Your task to perform on an android device: change alarm snooze length Image 0: 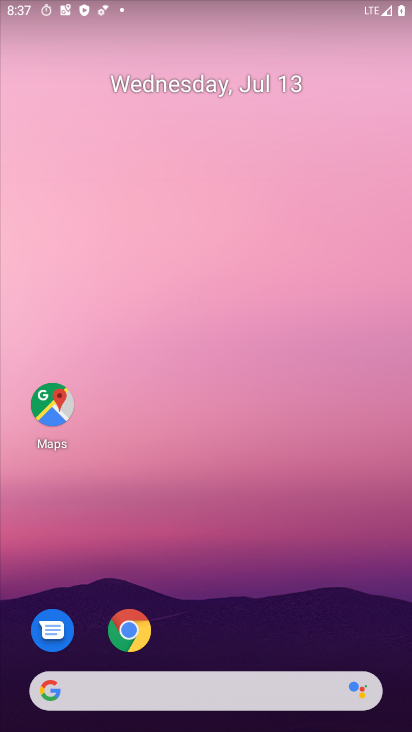
Step 0: drag from (321, 618) to (352, 118)
Your task to perform on an android device: change alarm snooze length Image 1: 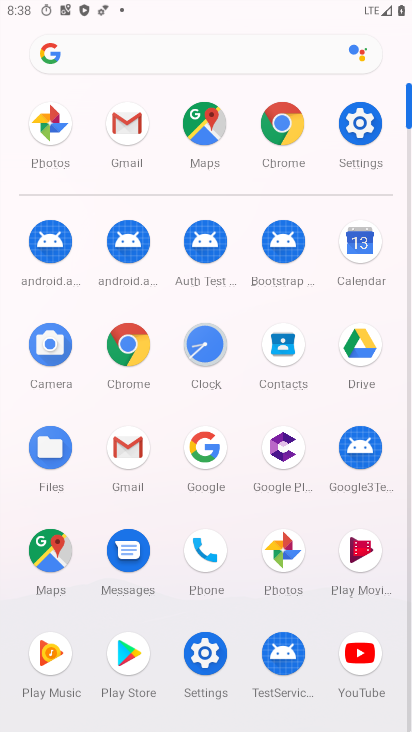
Step 1: click (196, 345)
Your task to perform on an android device: change alarm snooze length Image 2: 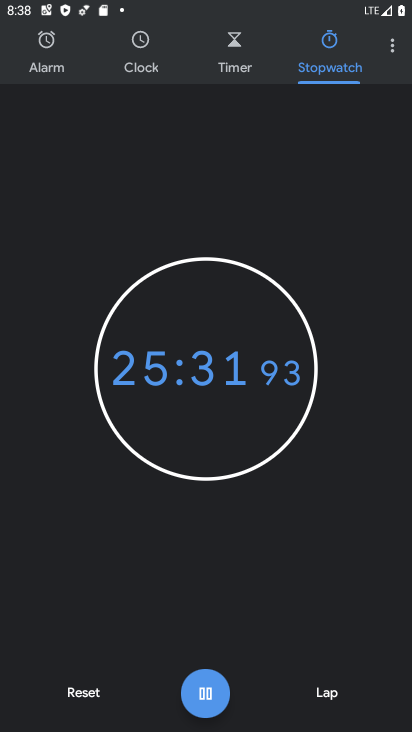
Step 2: click (393, 53)
Your task to perform on an android device: change alarm snooze length Image 3: 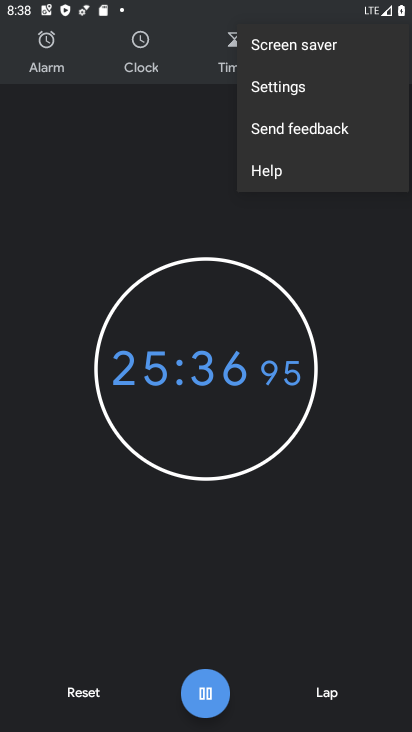
Step 3: click (306, 88)
Your task to perform on an android device: change alarm snooze length Image 4: 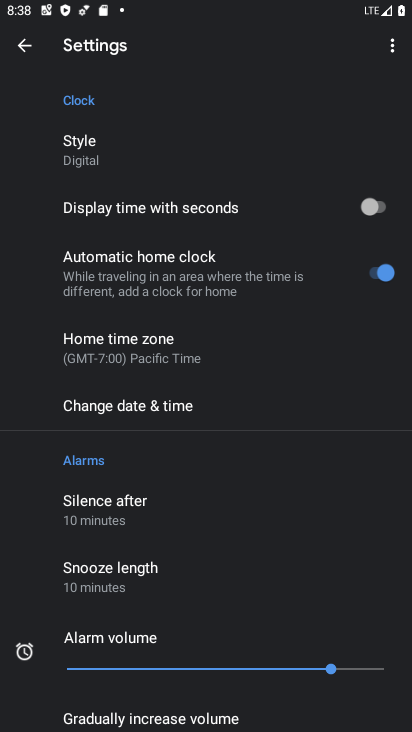
Step 4: drag from (295, 381) to (299, 294)
Your task to perform on an android device: change alarm snooze length Image 5: 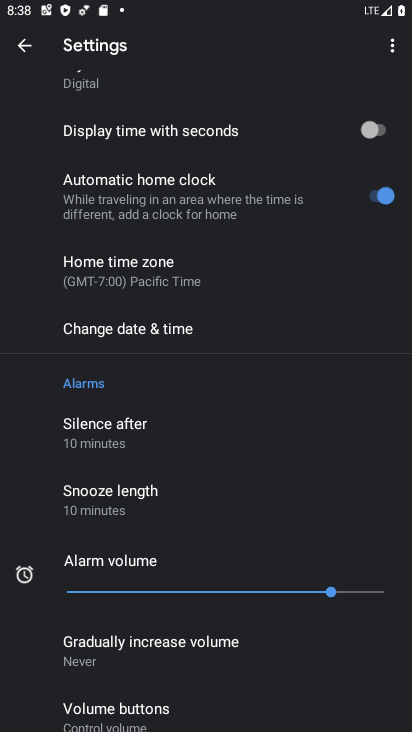
Step 5: drag from (288, 450) to (302, 337)
Your task to perform on an android device: change alarm snooze length Image 6: 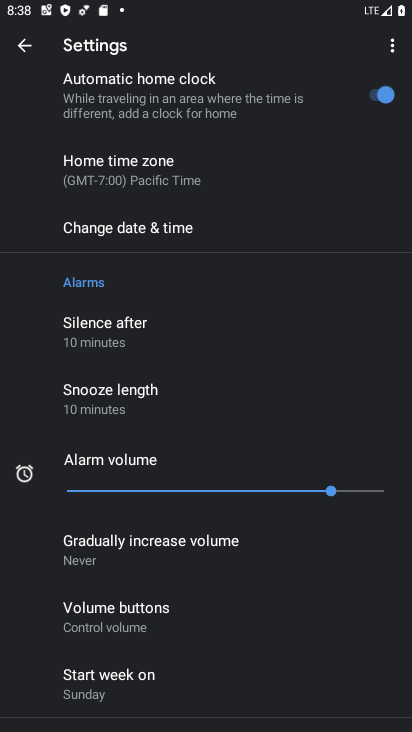
Step 6: drag from (306, 489) to (313, 359)
Your task to perform on an android device: change alarm snooze length Image 7: 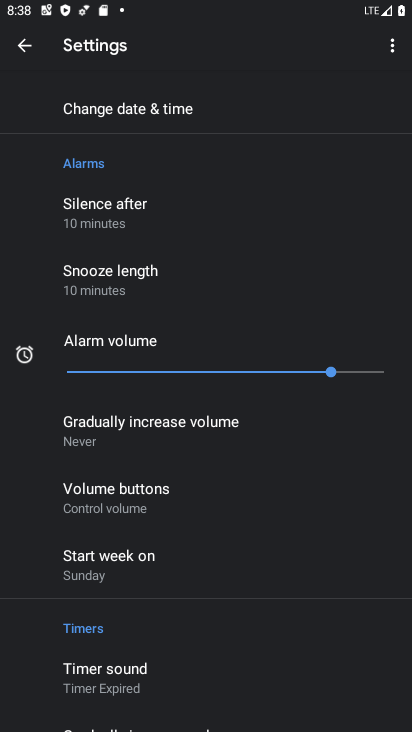
Step 7: drag from (311, 478) to (317, 376)
Your task to perform on an android device: change alarm snooze length Image 8: 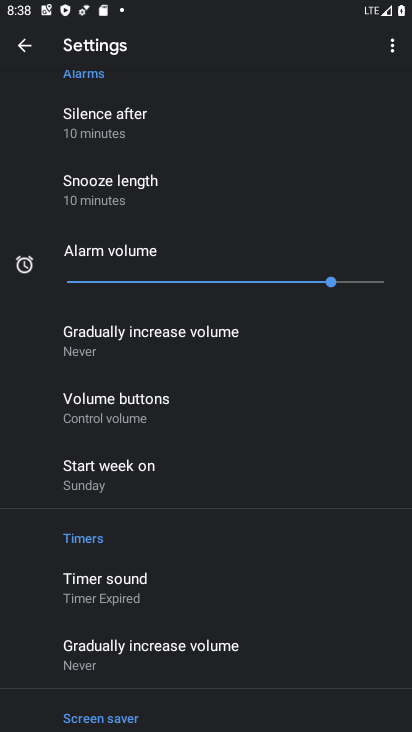
Step 8: drag from (333, 497) to (327, 300)
Your task to perform on an android device: change alarm snooze length Image 9: 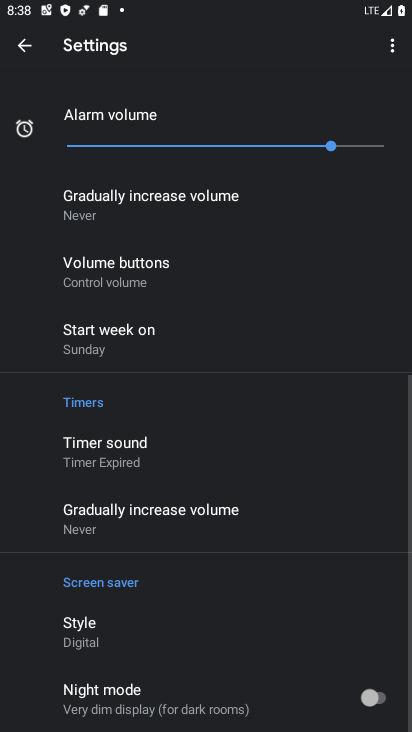
Step 9: drag from (325, 241) to (320, 325)
Your task to perform on an android device: change alarm snooze length Image 10: 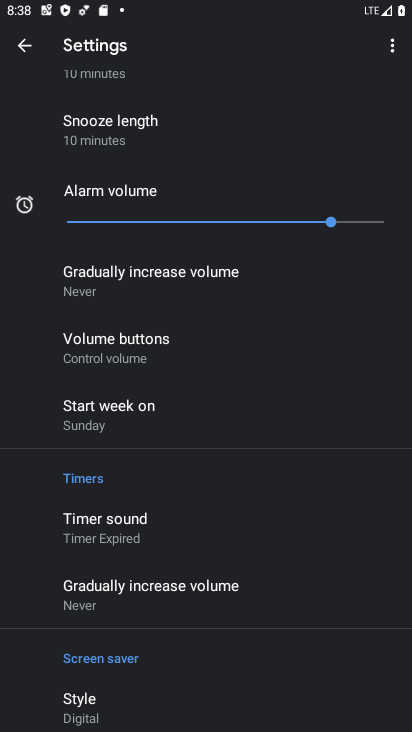
Step 10: drag from (336, 275) to (336, 367)
Your task to perform on an android device: change alarm snooze length Image 11: 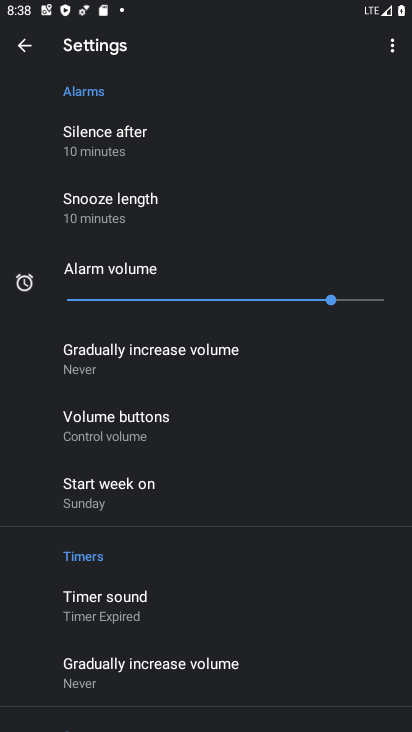
Step 11: drag from (335, 232) to (336, 334)
Your task to perform on an android device: change alarm snooze length Image 12: 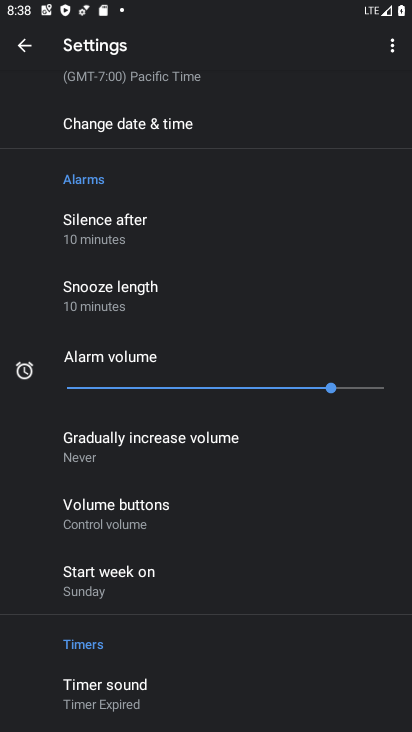
Step 12: drag from (335, 232) to (334, 329)
Your task to perform on an android device: change alarm snooze length Image 13: 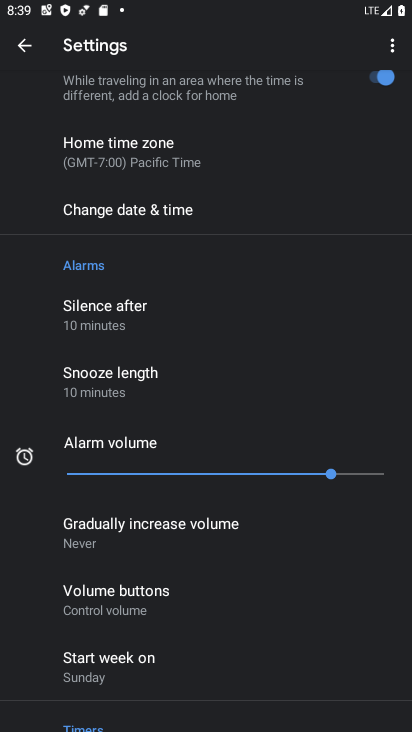
Step 13: drag from (338, 235) to (342, 329)
Your task to perform on an android device: change alarm snooze length Image 14: 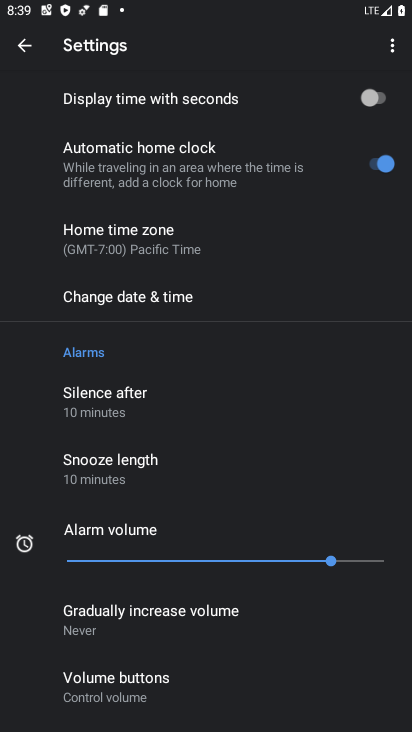
Step 14: drag from (337, 253) to (329, 443)
Your task to perform on an android device: change alarm snooze length Image 15: 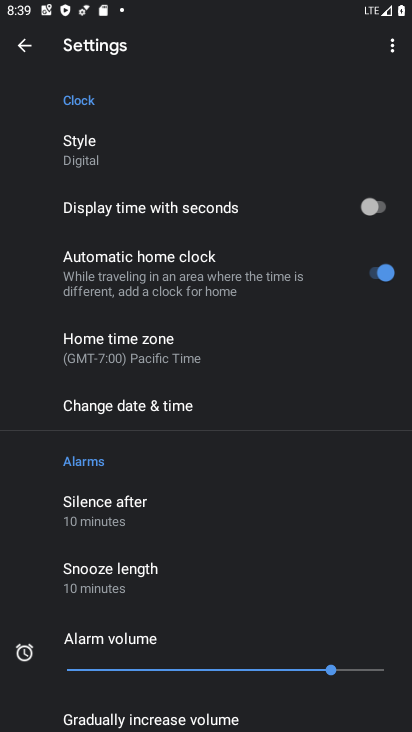
Step 15: click (158, 580)
Your task to perform on an android device: change alarm snooze length Image 16: 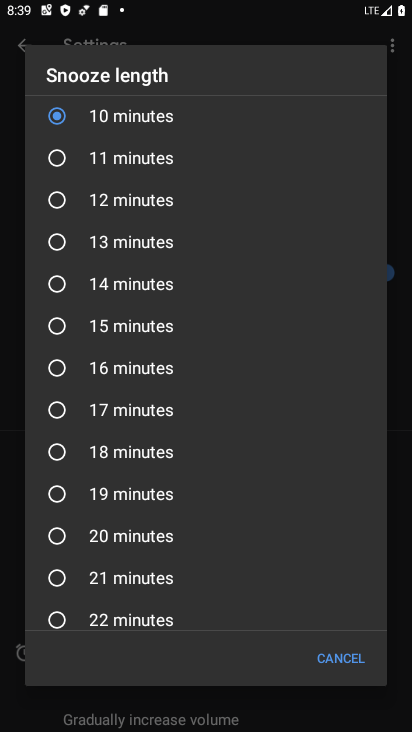
Step 16: click (144, 493)
Your task to perform on an android device: change alarm snooze length Image 17: 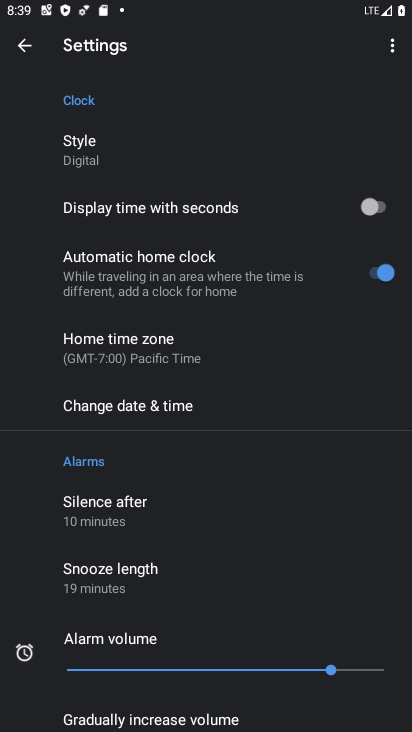
Step 17: task complete